Your task to perform on an android device: Show me popular games on the Play Store Image 0: 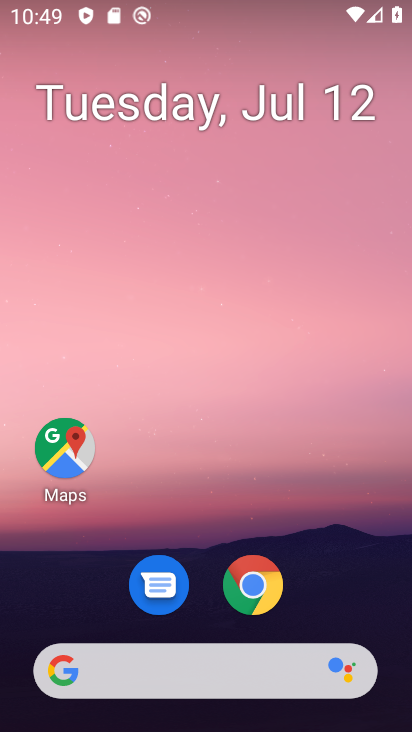
Step 0: drag from (325, 555) to (341, 66)
Your task to perform on an android device: Show me popular games on the Play Store Image 1: 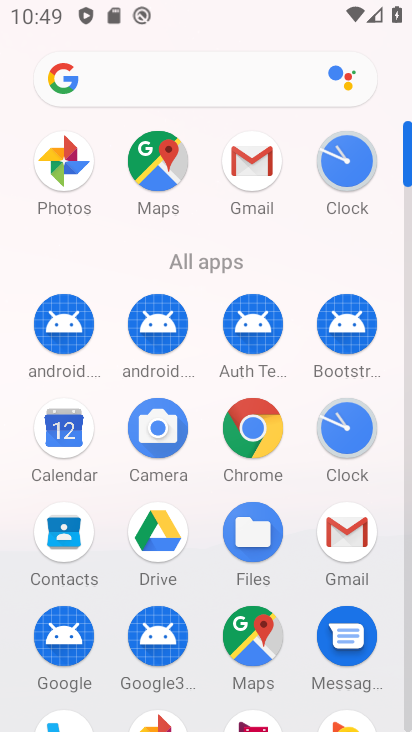
Step 1: drag from (200, 468) to (202, 137)
Your task to perform on an android device: Show me popular games on the Play Store Image 2: 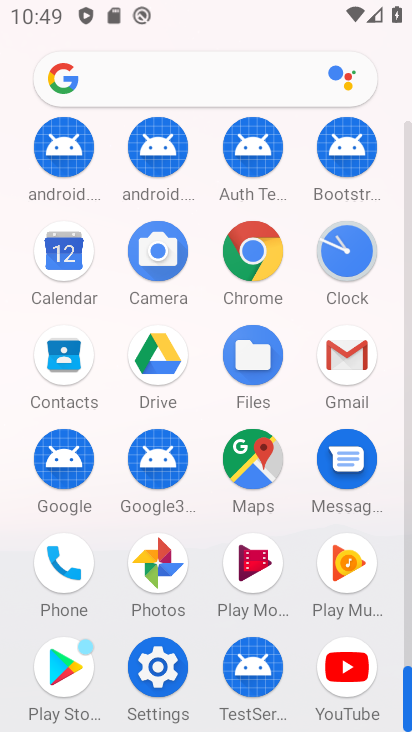
Step 2: click (78, 664)
Your task to perform on an android device: Show me popular games on the Play Store Image 3: 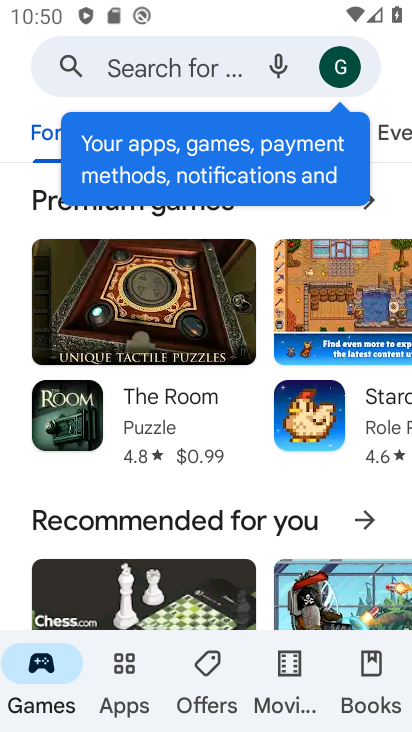
Step 3: click (387, 172)
Your task to perform on an android device: Show me popular games on the Play Store Image 4: 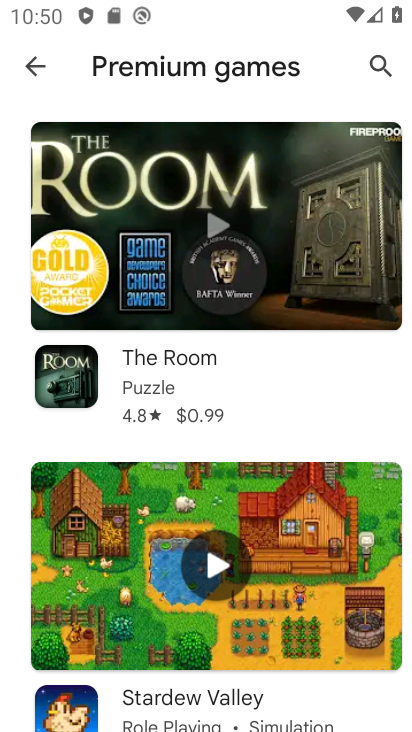
Step 4: click (30, 68)
Your task to perform on an android device: Show me popular games on the Play Store Image 5: 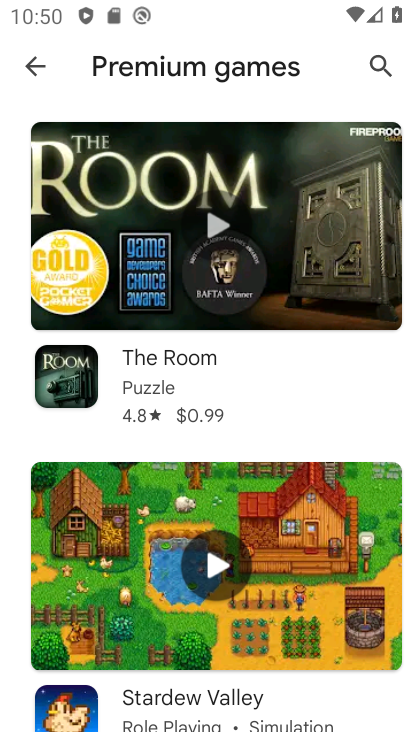
Step 5: click (34, 59)
Your task to perform on an android device: Show me popular games on the Play Store Image 6: 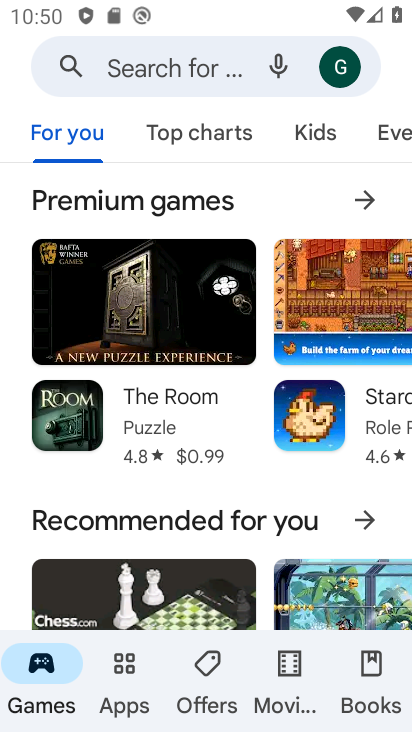
Step 6: drag from (327, 521) to (351, 123)
Your task to perform on an android device: Show me popular games on the Play Store Image 7: 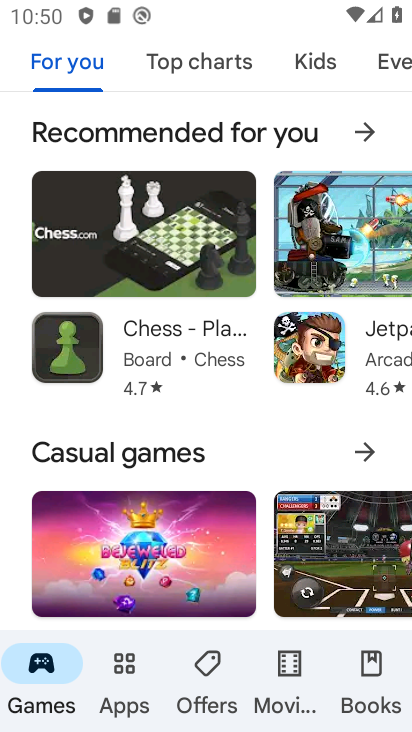
Step 7: drag from (313, 461) to (302, 134)
Your task to perform on an android device: Show me popular games on the Play Store Image 8: 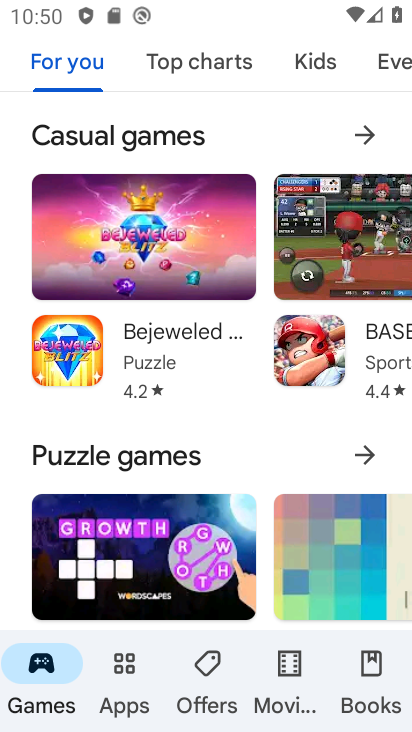
Step 8: drag from (306, 551) to (314, 171)
Your task to perform on an android device: Show me popular games on the Play Store Image 9: 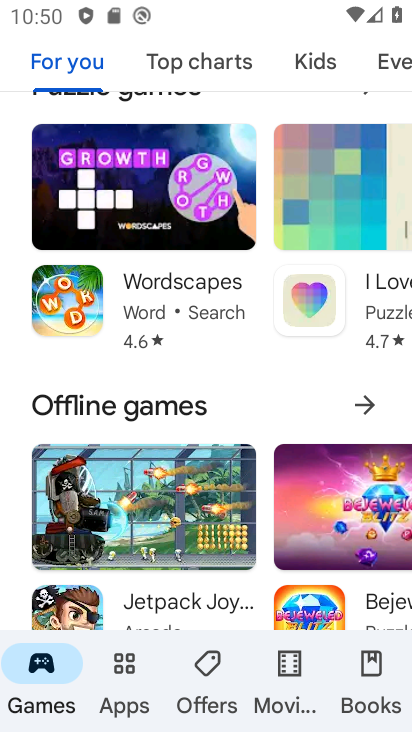
Step 9: drag from (297, 387) to (297, 147)
Your task to perform on an android device: Show me popular games on the Play Store Image 10: 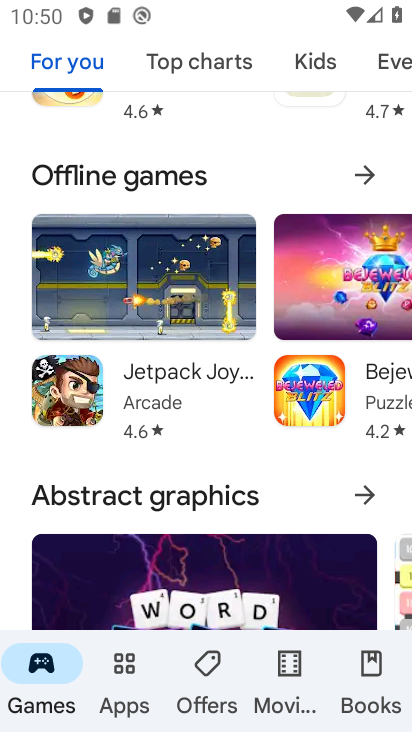
Step 10: drag from (289, 195) to (260, 639)
Your task to perform on an android device: Show me popular games on the Play Store Image 11: 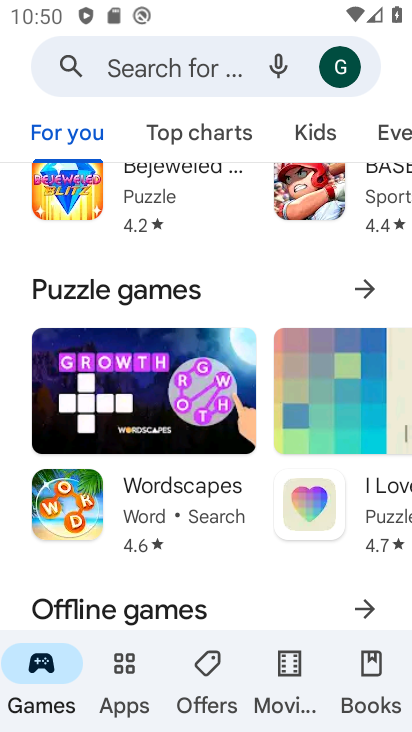
Step 11: drag from (273, 235) to (311, 652)
Your task to perform on an android device: Show me popular games on the Play Store Image 12: 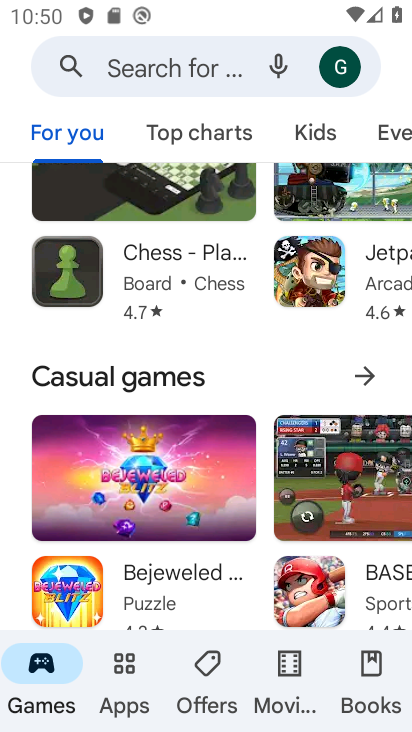
Step 12: drag from (294, 271) to (286, 670)
Your task to perform on an android device: Show me popular games on the Play Store Image 13: 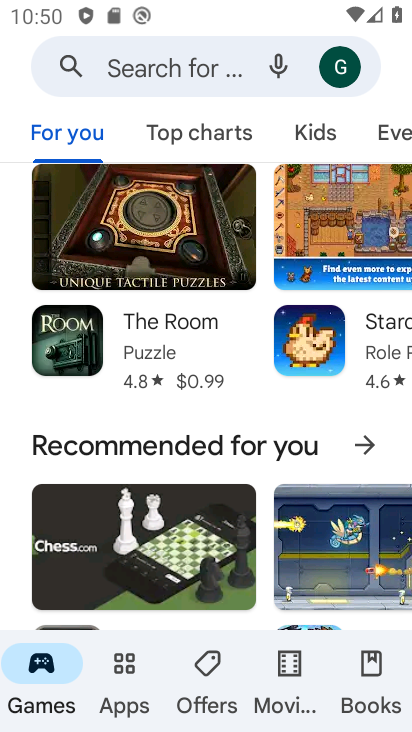
Step 13: drag from (292, 291) to (332, 633)
Your task to perform on an android device: Show me popular games on the Play Store Image 14: 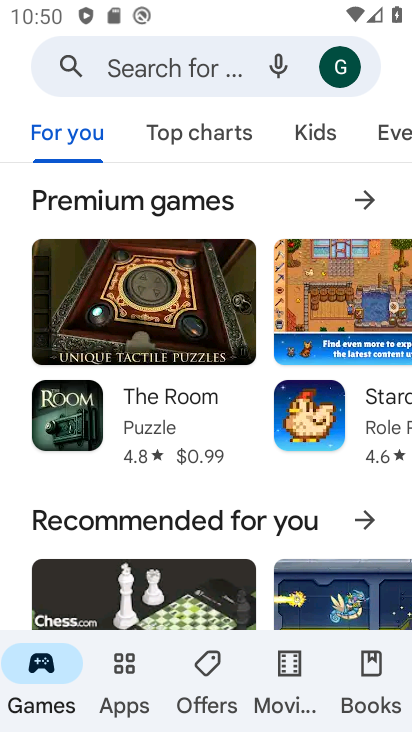
Step 14: drag from (320, 267) to (358, 475)
Your task to perform on an android device: Show me popular games on the Play Store Image 15: 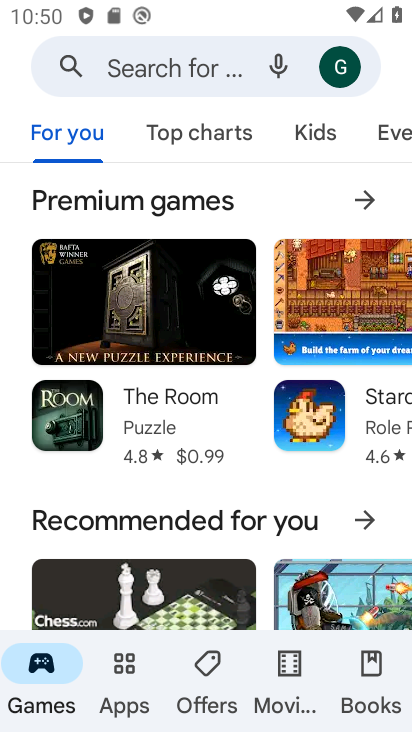
Step 15: click (369, 197)
Your task to perform on an android device: Show me popular games on the Play Store Image 16: 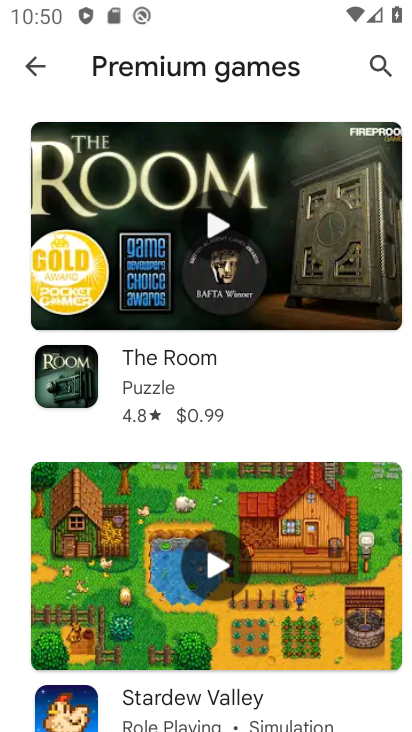
Step 16: task complete